Your task to perform on an android device: What is the news today? Image 0: 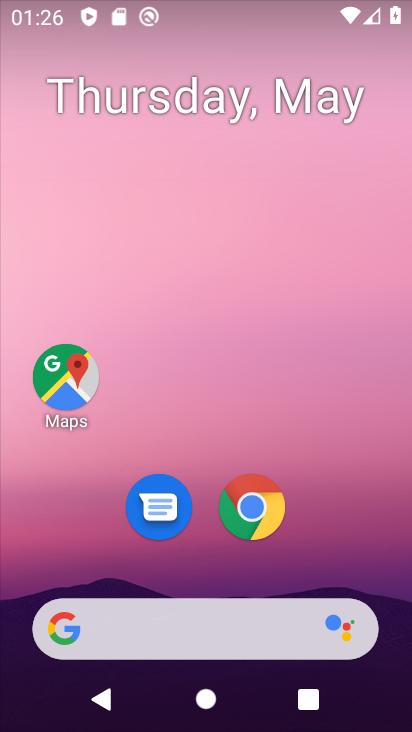
Step 0: drag from (347, 564) to (330, 172)
Your task to perform on an android device: What is the news today? Image 1: 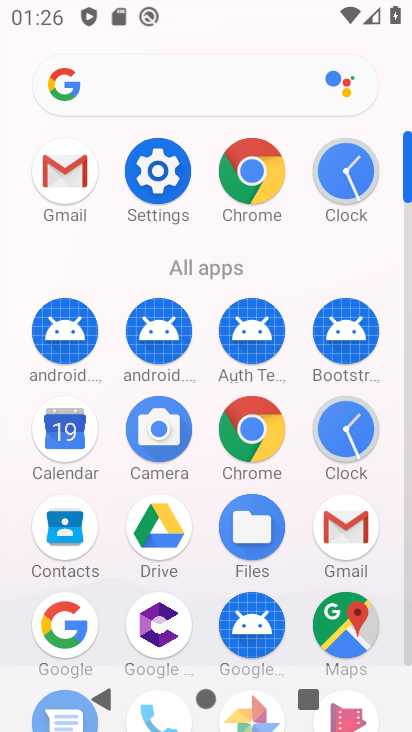
Step 1: click (250, 173)
Your task to perform on an android device: What is the news today? Image 2: 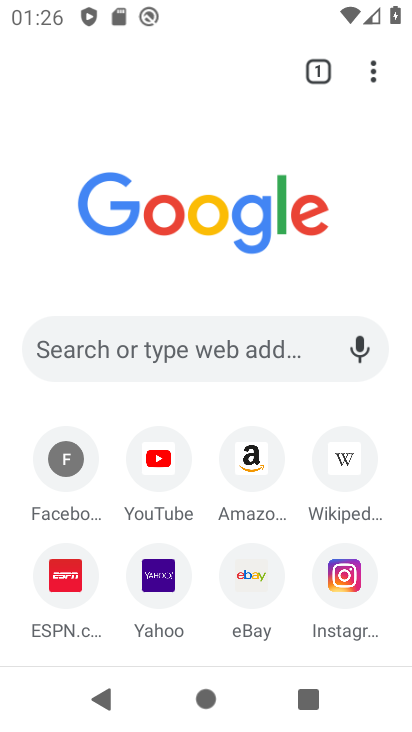
Step 2: click (154, 343)
Your task to perform on an android device: What is the news today? Image 3: 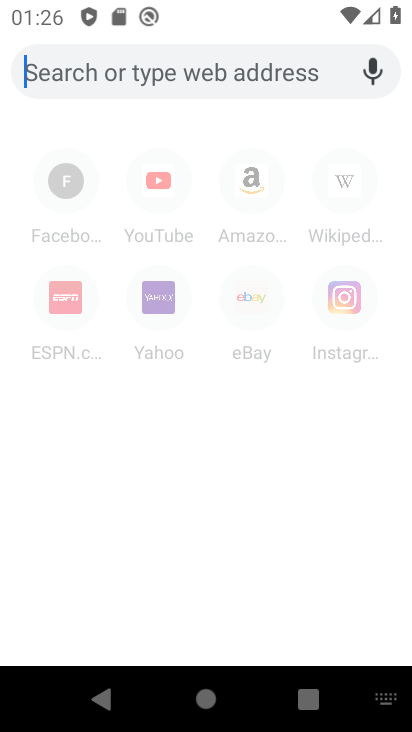
Step 3: type "What is the news today?"
Your task to perform on an android device: What is the news today? Image 4: 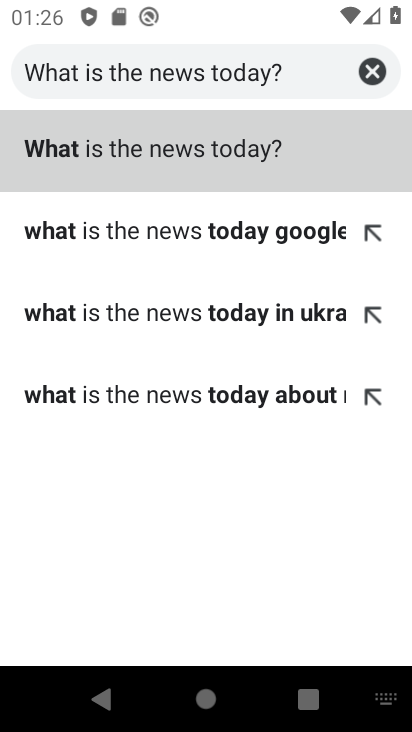
Step 4: click (175, 142)
Your task to perform on an android device: What is the news today? Image 5: 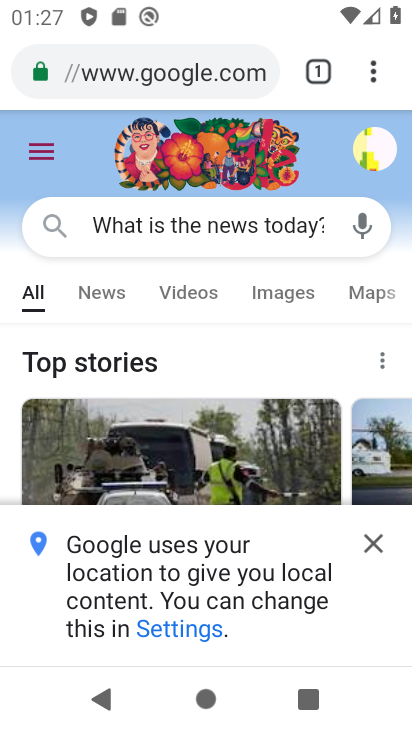
Step 5: task complete